Your task to perform on an android device: What's the weather today? Image 0: 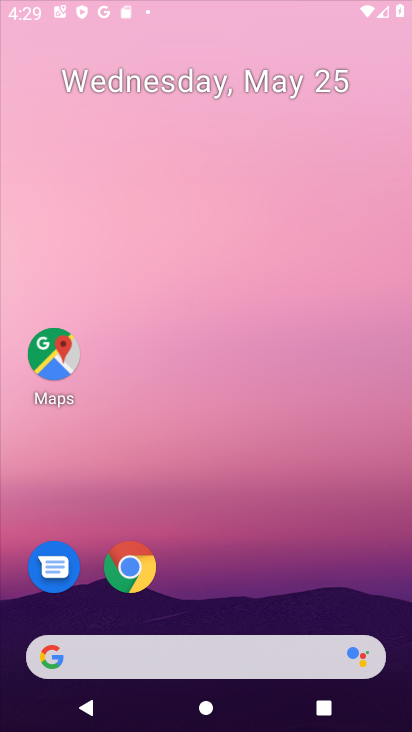
Step 0: click (188, 44)
Your task to perform on an android device: What's the weather today? Image 1: 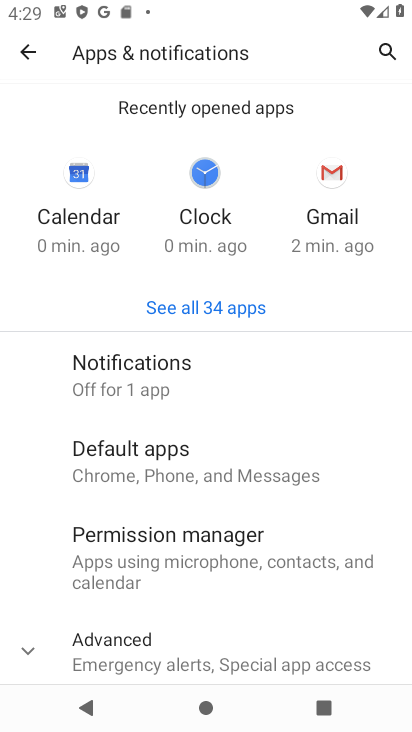
Step 1: press back button
Your task to perform on an android device: What's the weather today? Image 2: 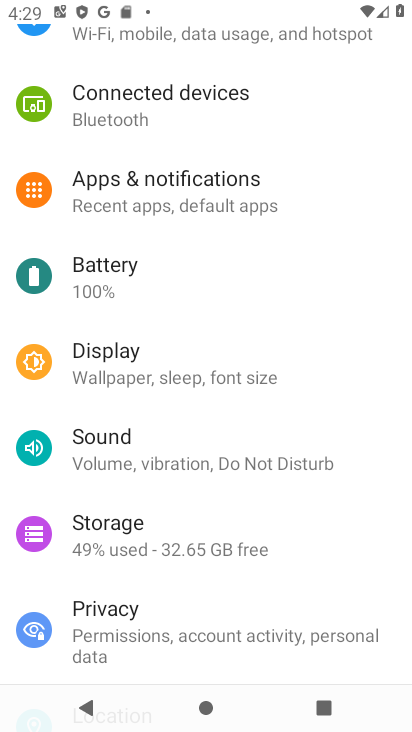
Step 2: press home button
Your task to perform on an android device: What's the weather today? Image 3: 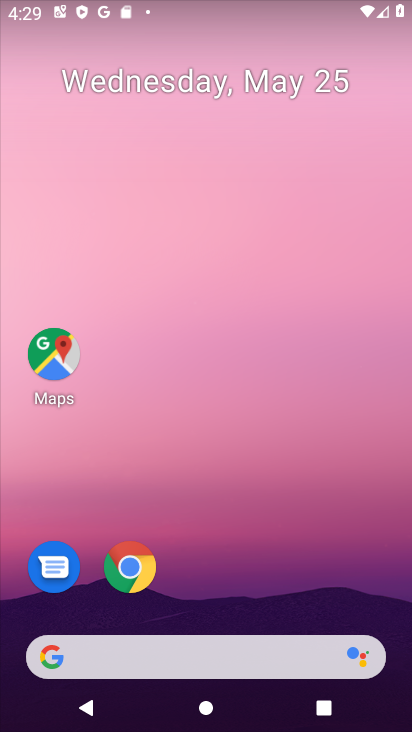
Step 3: drag from (235, 567) to (237, 63)
Your task to perform on an android device: What's the weather today? Image 4: 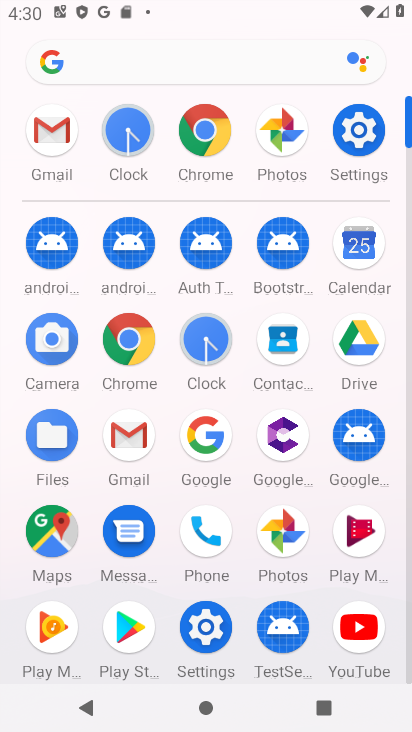
Step 4: drag from (4, 580) to (25, 237)
Your task to perform on an android device: What's the weather today? Image 5: 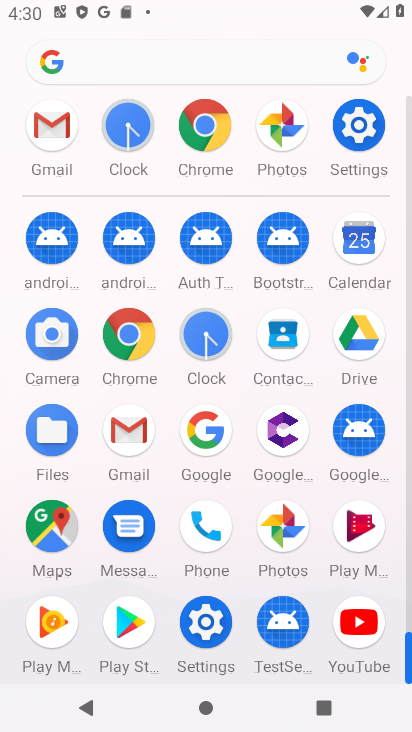
Step 5: drag from (12, 588) to (30, 277)
Your task to perform on an android device: What's the weather today? Image 6: 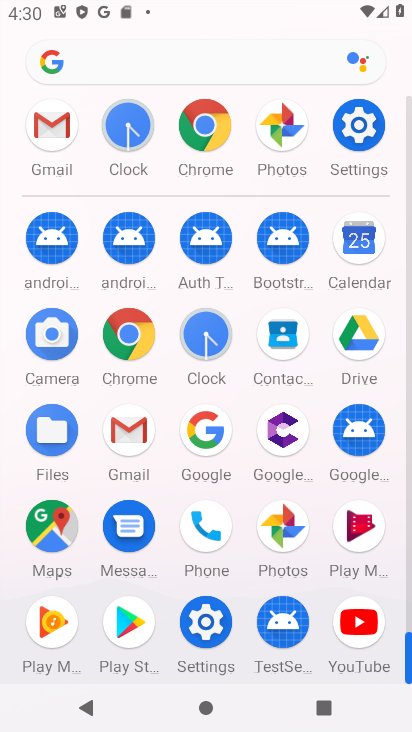
Step 6: click (130, 331)
Your task to perform on an android device: What's the weather today? Image 7: 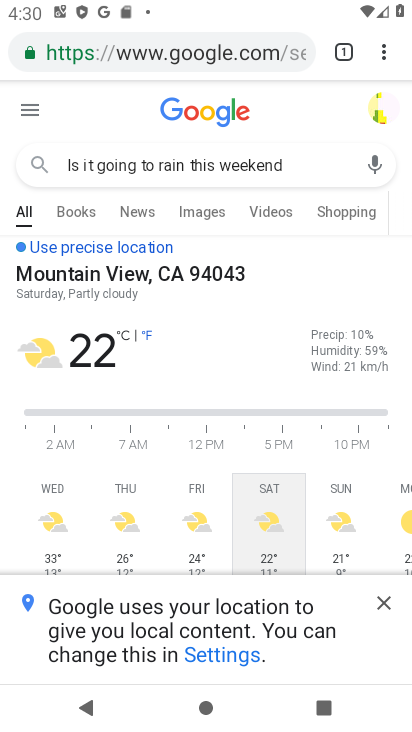
Step 7: click (173, 39)
Your task to perform on an android device: What's the weather today? Image 8: 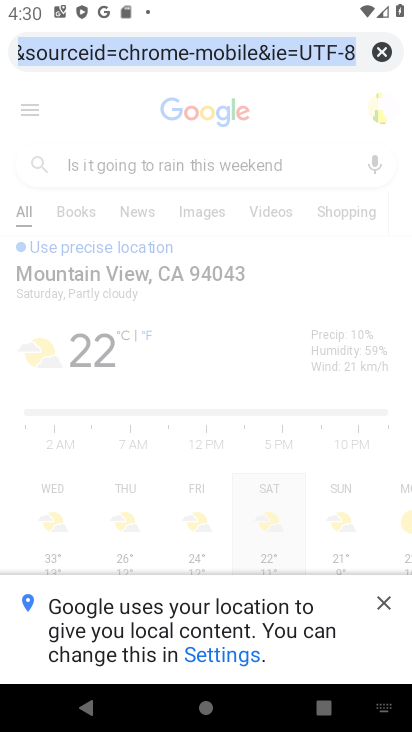
Step 8: click (388, 50)
Your task to perform on an android device: What's the weather today? Image 9: 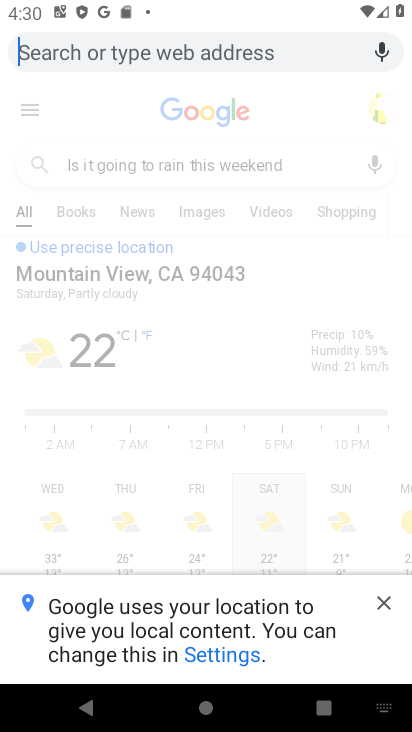
Step 9: type "What's the weather today?"
Your task to perform on an android device: What's the weather today? Image 10: 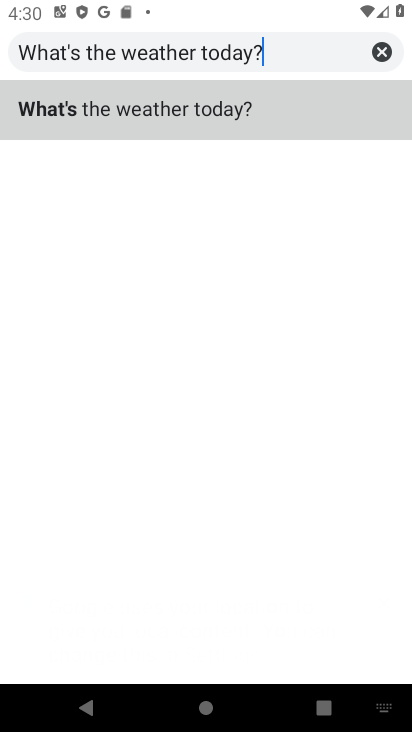
Step 10: type ""
Your task to perform on an android device: What's the weather today? Image 11: 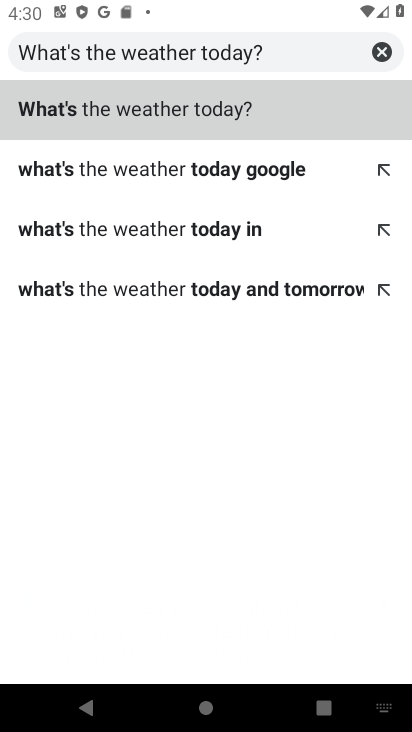
Step 11: click (217, 121)
Your task to perform on an android device: What's the weather today? Image 12: 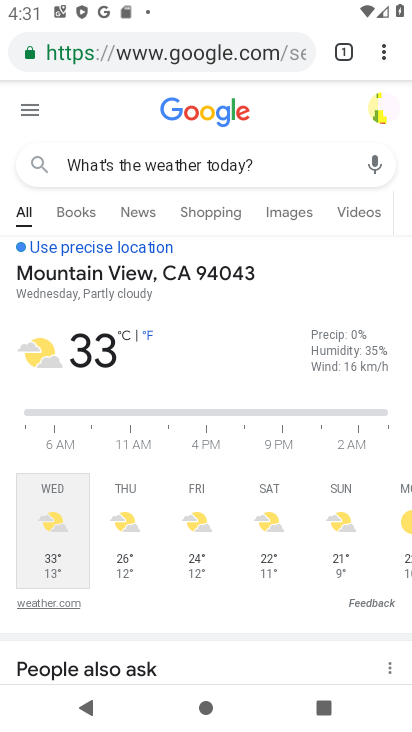
Step 12: press home button
Your task to perform on an android device: What's the weather today? Image 13: 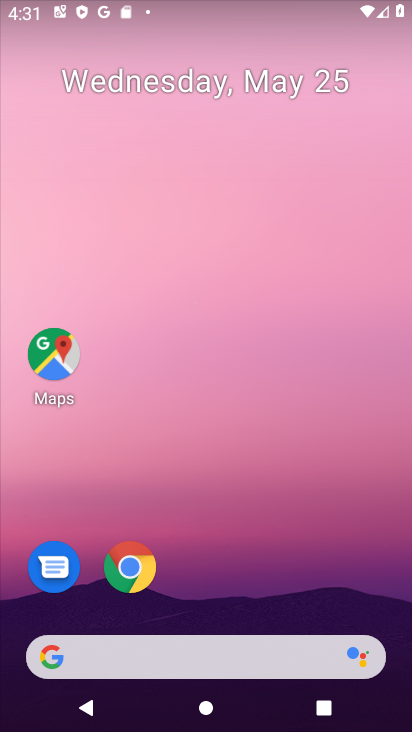
Step 13: click (128, 561)
Your task to perform on an android device: What's the weather today? Image 14: 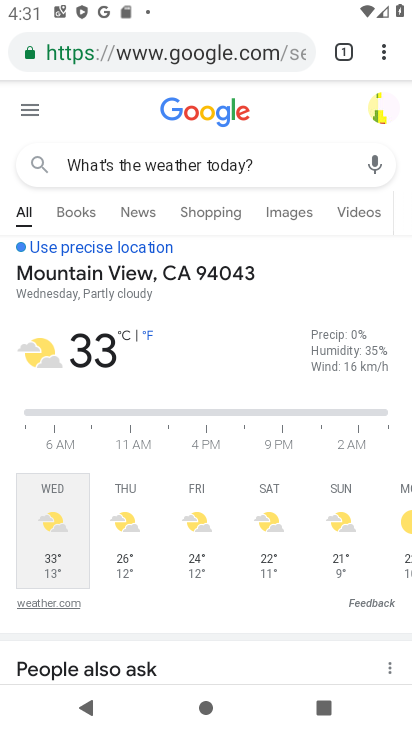
Step 14: task complete